Your task to perform on an android device: turn on the 24-hour format for clock Image 0: 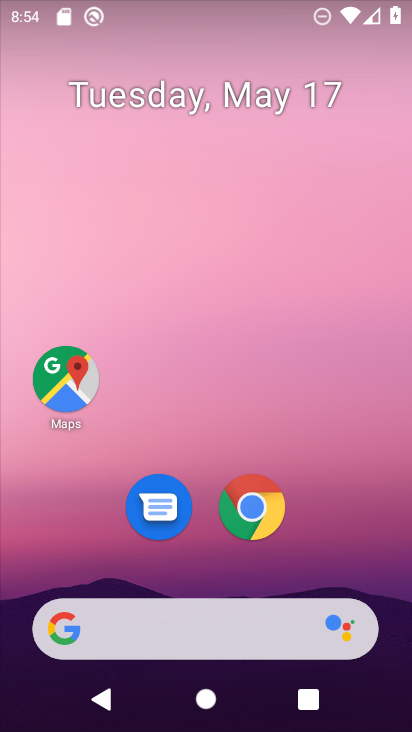
Step 0: drag from (391, 595) to (399, 9)
Your task to perform on an android device: turn on the 24-hour format for clock Image 1: 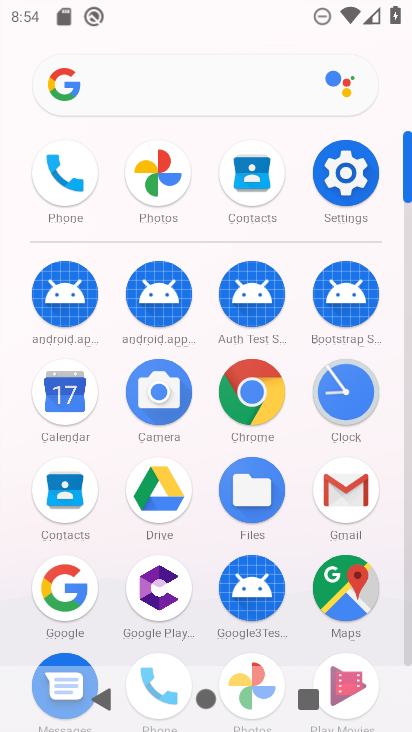
Step 1: click (333, 404)
Your task to perform on an android device: turn on the 24-hour format for clock Image 2: 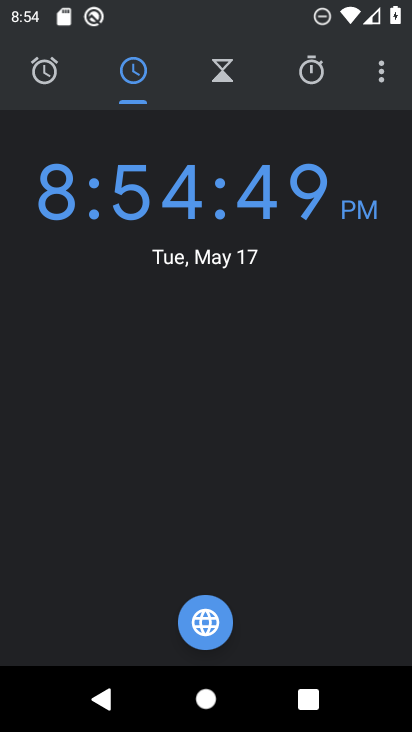
Step 2: click (381, 80)
Your task to perform on an android device: turn on the 24-hour format for clock Image 3: 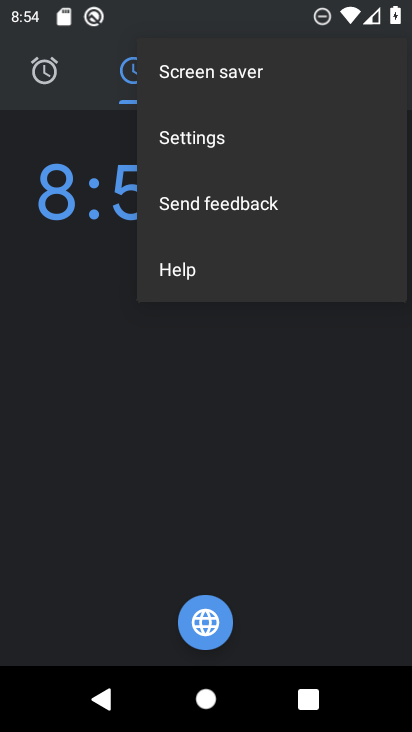
Step 3: click (184, 143)
Your task to perform on an android device: turn on the 24-hour format for clock Image 4: 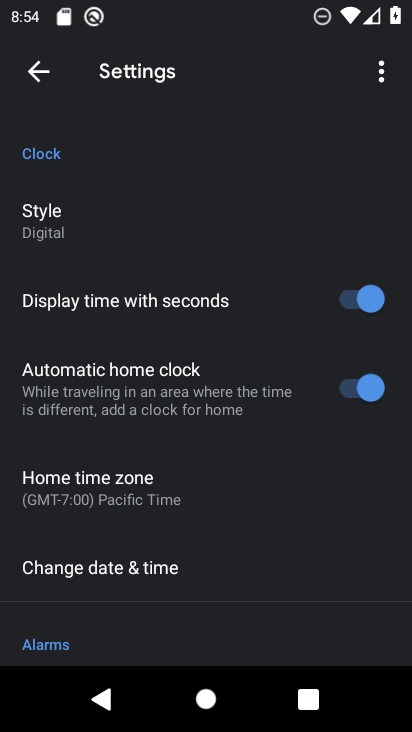
Step 4: drag from (240, 560) to (258, 279)
Your task to perform on an android device: turn on the 24-hour format for clock Image 5: 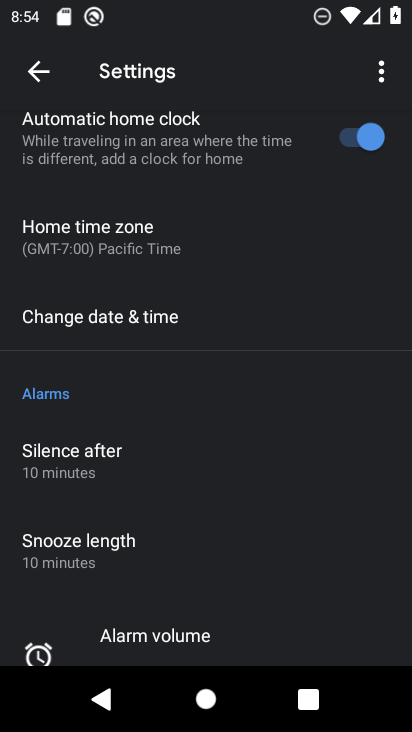
Step 5: click (86, 321)
Your task to perform on an android device: turn on the 24-hour format for clock Image 6: 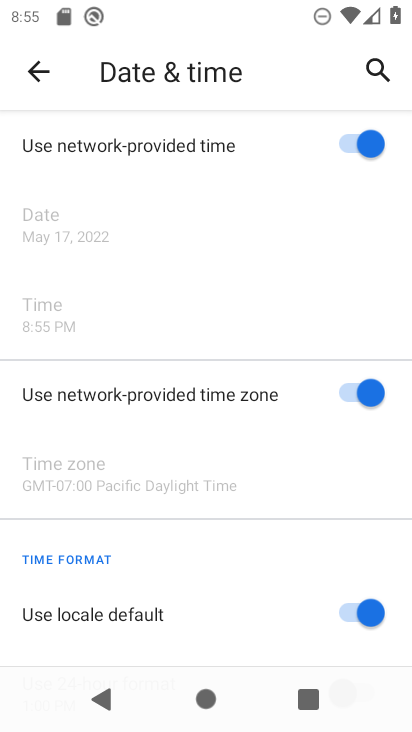
Step 6: drag from (193, 545) to (176, 188)
Your task to perform on an android device: turn on the 24-hour format for clock Image 7: 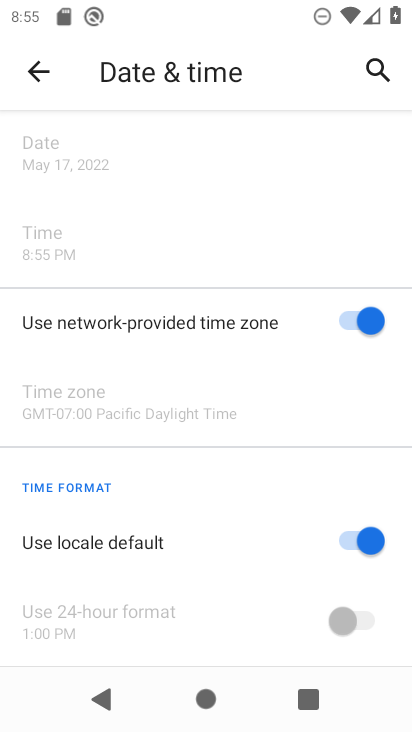
Step 7: click (360, 543)
Your task to perform on an android device: turn on the 24-hour format for clock Image 8: 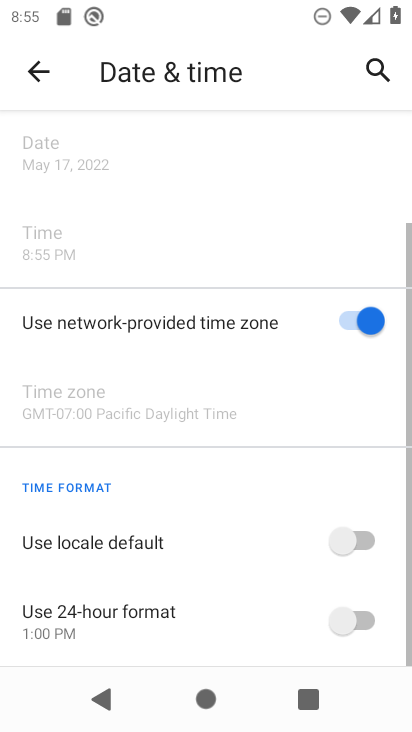
Step 8: click (361, 624)
Your task to perform on an android device: turn on the 24-hour format for clock Image 9: 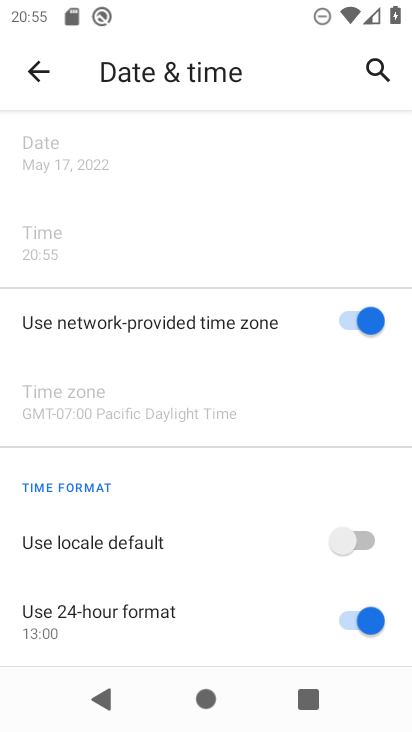
Step 9: task complete